Your task to perform on an android device: Search for good Greek restaurants Image 0: 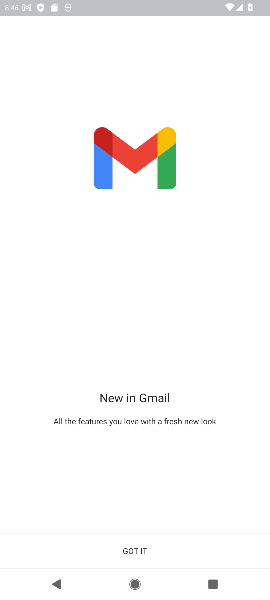
Step 0: press home button
Your task to perform on an android device: Search for good Greek restaurants Image 1: 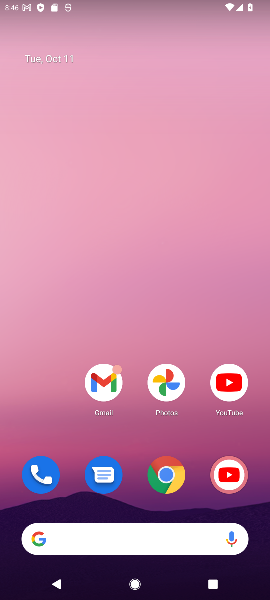
Step 1: drag from (157, 508) to (158, 47)
Your task to perform on an android device: Search for good Greek restaurants Image 2: 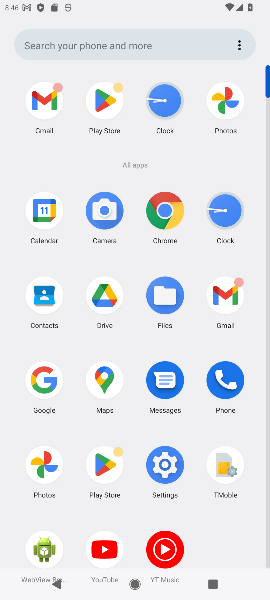
Step 2: click (162, 222)
Your task to perform on an android device: Search for good Greek restaurants Image 3: 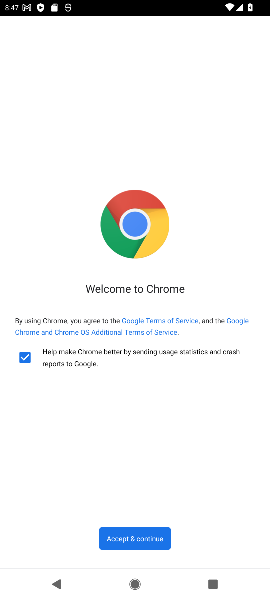
Step 3: click (123, 550)
Your task to perform on an android device: Search for good Greek restaurants Image 4: 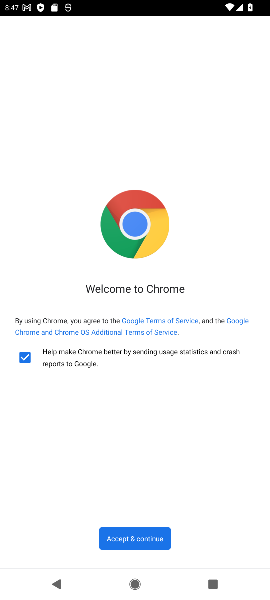
Step 4: click (125, 532)
Your task to perform on an android device: Search for good Greek restaurants Image 5: 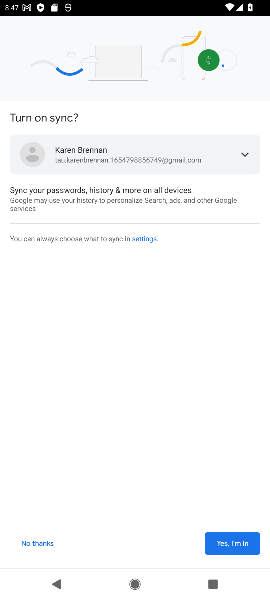
Step 5: click (248, 542)
Your task to perform on an android device: Search for good Greek restaurants Image 6: 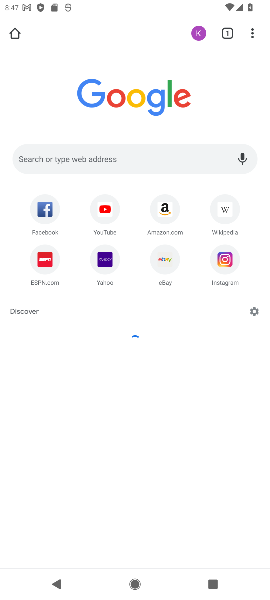
Step 6: click (225, 539)
Your task to perform on an android device: Search for good Greek restaurants Image 7: 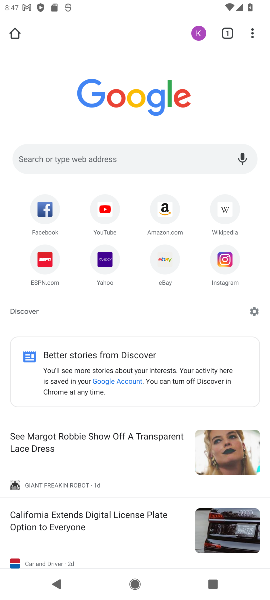
Step 7: click (83, 162)
Your task to perform on an android device: Search for good Greek restaurants Image 8: 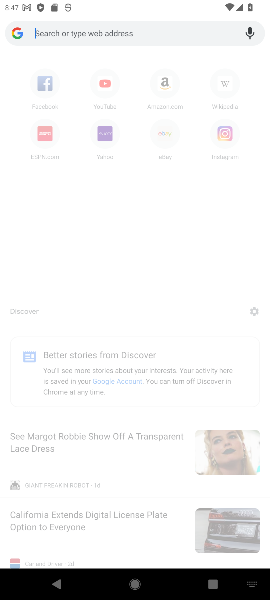
Step 8: type "good Greek restaurants"
Your task to perform on an android device: Search for good Greek restaurants Image 9: 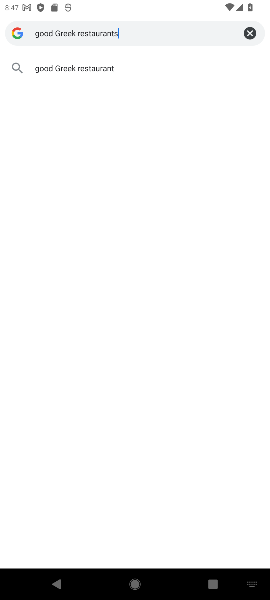
Step 9: type ""
Your task to perform on an android device: Search for good Greek restaurants Image 10: 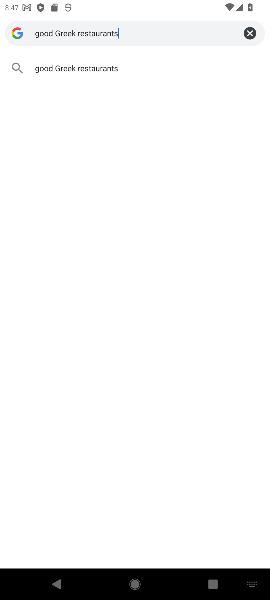
Step 10: click (86, 66)
Your task to perform on an android device: Search for good Greek restaurants Image 11: 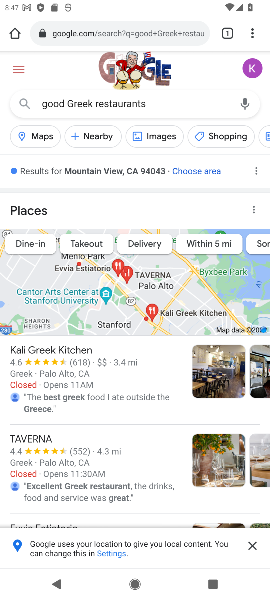
Step 11: click (52, 359)
Your task to perform on an android device: Search for good Greek restaurants Image 12: 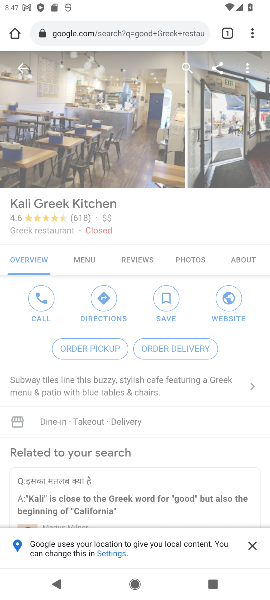
Step 12: click (248, 550)
Your task to perform on an android device: Search for good Greek restaurants Image 13: 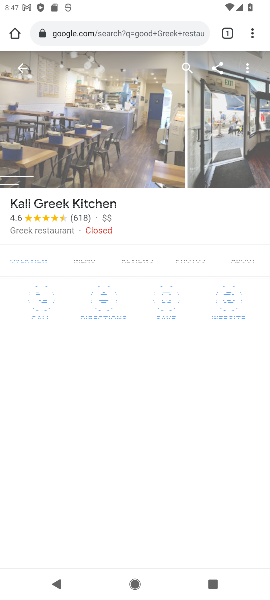
Step 13: drag from (226, 576) to (214, 266)
Your task to perform on an android device: Search for good Greek restaurants Image 14: 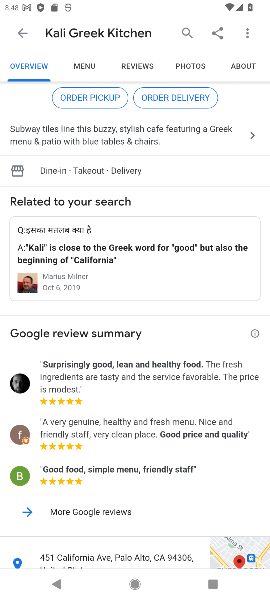
Step 14: drag from (150, 457) to (192, 146)
Your task to perform on an android device: Search for good Greek restaurants Image 15: 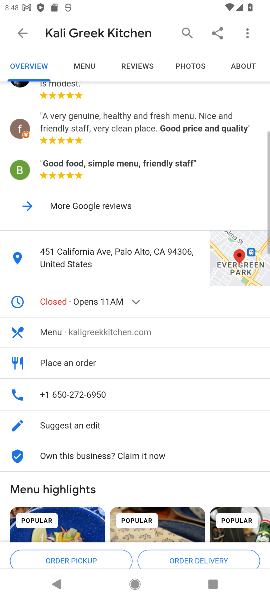
Step 15: drag from (181, 418) to (186, 118)
Your task to perform on an android device: Search for good Greek restaurants Image 16: 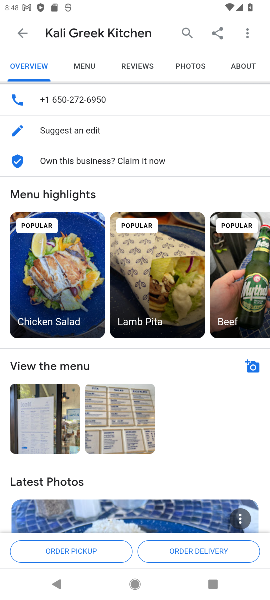
Step 16: drag from (152, 369) to (173, 116)
Your task to perform on an android device: Search for good Greek restaurants Image 17: 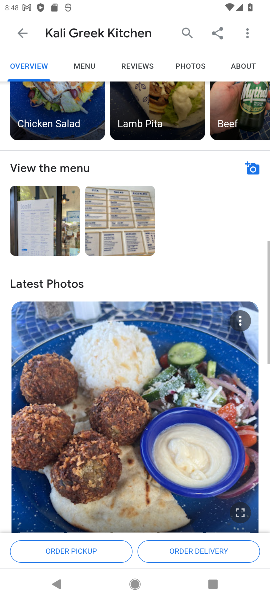
Step 17: drag from (131, 358) to (149, 120)
Your task to perform on an android device: Search for good Greek restaurants Image 18: 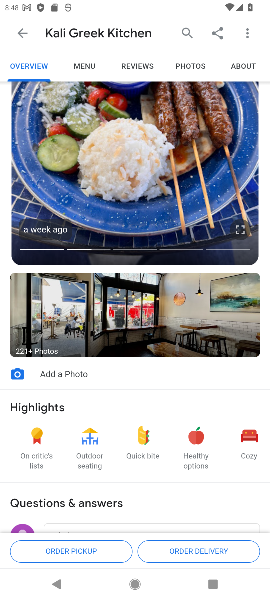
Step 18: drag from (139, 256) to (140, 109)
Your task to perform on an android device: Search for good Greek restaurants Image 19: 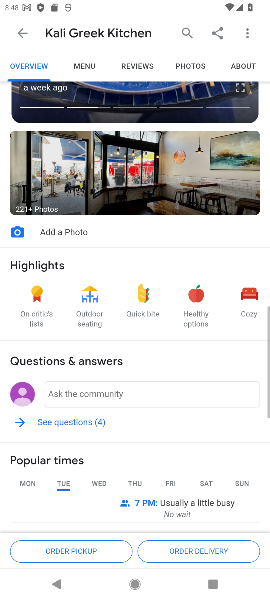
Step 19: drag from (127, 367) to (170, 111)
Your task to perform on an android device: Search for good Greek restaurants Image 20: 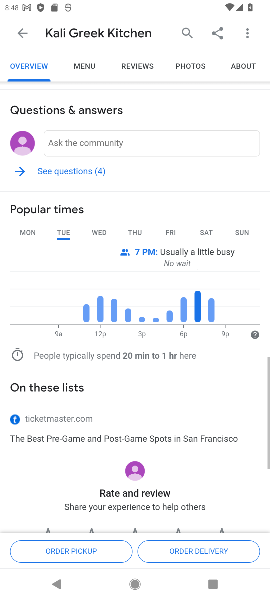
Step 20: drag from (178, 370) to (205, 85)
Your task to perform on an android device: Search for good Greek restaurants Image 21: 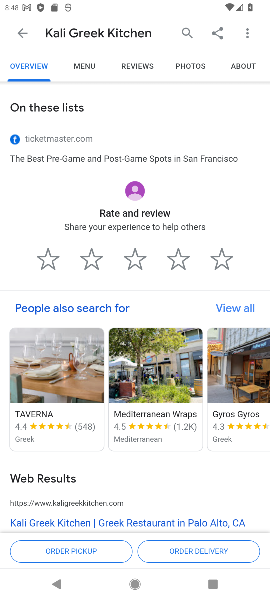
Step 21: drag from (131, 422) to (132, 131)
Your task to perform on an android device: Search for good Greek restaurants Image 22: 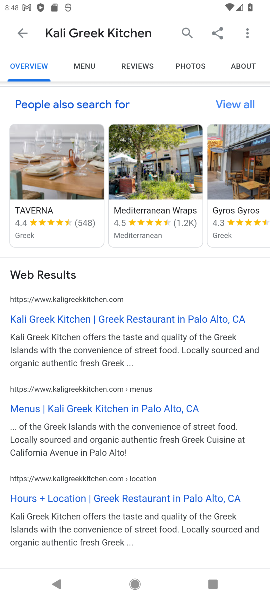
Step 22: drag from (166, 442) to (175, 124)
Your task to perform on an android device: Search for good Greek restaurants Image 23: 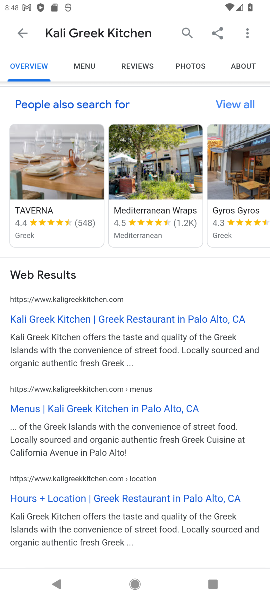
Step 23: drag from (163, 446) to (197, 157)
Your task to perform on an android device: Search for good Greek restaurants Image 24: 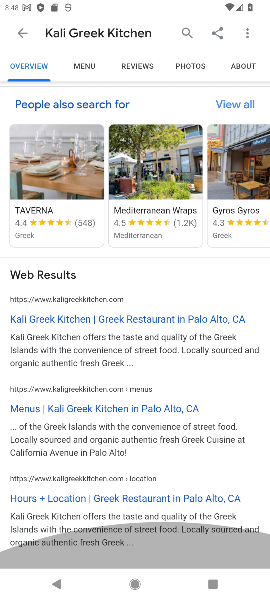
Step 24: drag from (144, 446) to (163, 122)
Your task to perform on an android device: Search for good Greek restaurants Image 25: 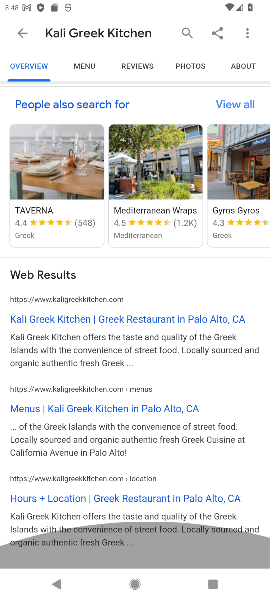
Step 25: drag from (179, 484) to (173, 154)
Your task to perform on an android device: Search for good Greek restaurants Image 26: 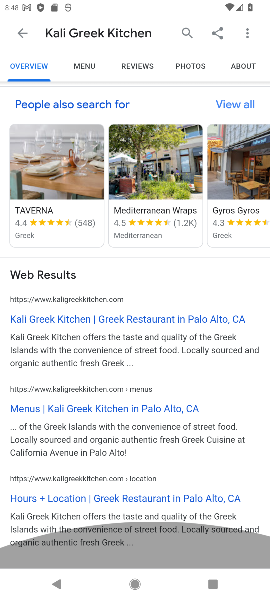
Step 26: drag from (182, 342) to (188, 161)
Your task to perform on an android device: Search for good Greek restaurants Image 27: 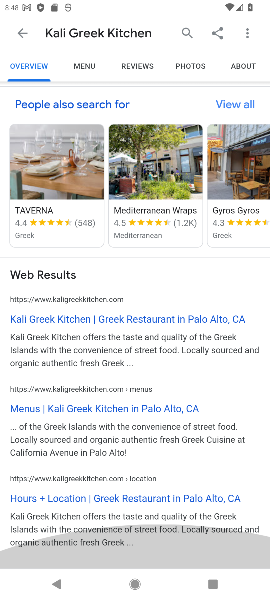
Step 27: drag from (187, 437) to (165, 291)
Your task to perform on an android device: Search for good Greek restaurants Image 28: 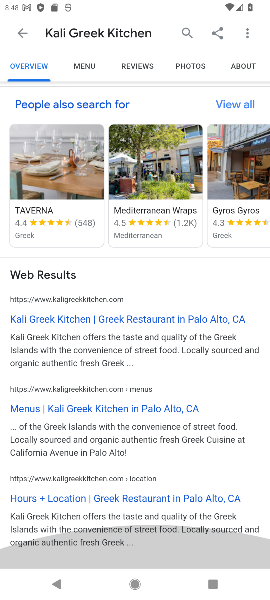
Step 28: drag from (157, 240) to (157, 506)
Your task to perform on an android device: Search for good Greek restaurants Image 29: 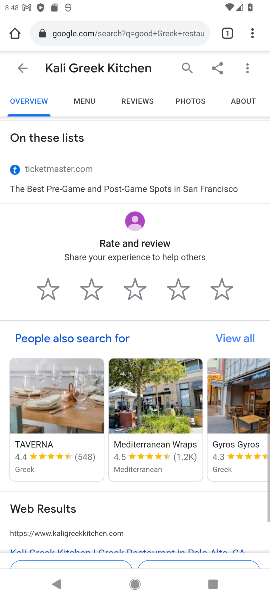
Step 29: drag from (201, 258) to (165, 486)
Your task to perform on an android device: Search for good Greek restaurants Image 30: 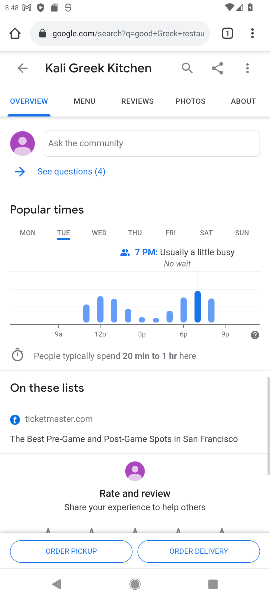
Step 30: drag from (151, 274) to (132, 562)
Your task to perform on an android device: Search for good Greek restaurants Image 31: 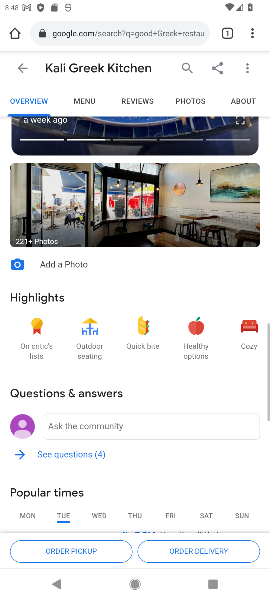
Step 31: drag from (161, 242) to (134, 471)
Your task to perform on an android device: Search for good Greek restaurants Image 32: 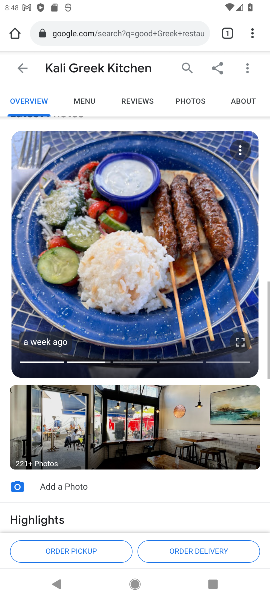
Step 32: drag from (141, 203) to (123, 438)
Your task to perform on an android device: Search for good Greek restaurants Image 33: 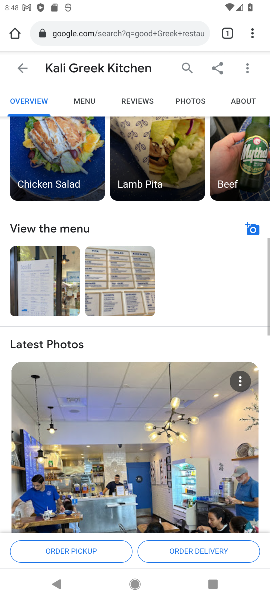
Step 33: drag from (128, 175) to (114, 248)
Your task to perform on an android device: Search for good Greek restaurants Image 34: 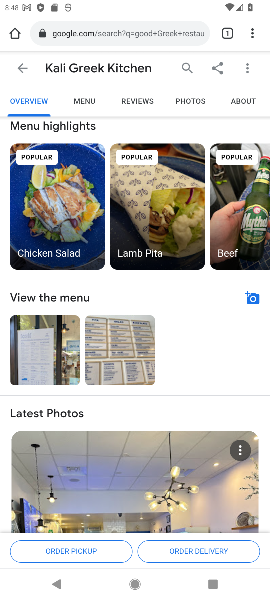
Step 34: drag from (114, 248) to (83, 367)
Your task to perform on an android device: Search for good Greek restaurants Image 35: 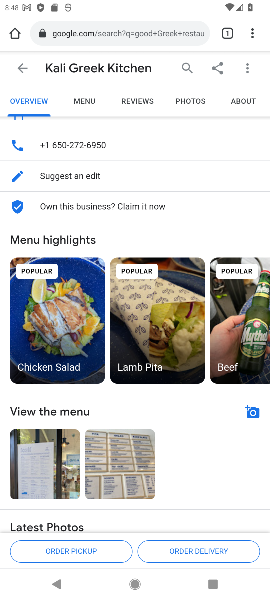
Step 35: drag from (125, 157) to (104, 427)
Your task to perform on an android device: Search for good Greek restaurants Image 36: 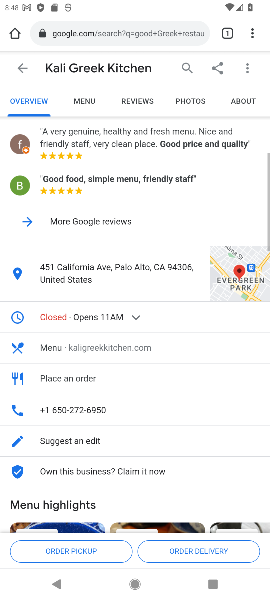
Step 36: drag from (116, 196) to (76, 400)
Your task to perform on an android device: Search for good Greek restaurants Image 37: 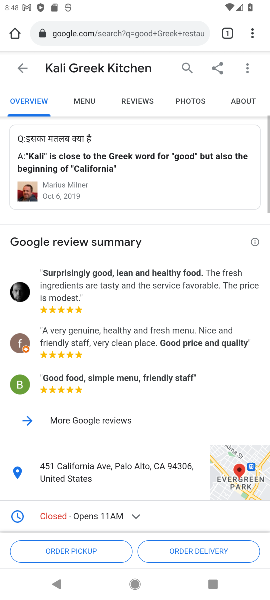
Step 37: drag from (114, 285) to (76, 444)
Your task to perform on an android device: Search for good Greek restaurants Image 38: 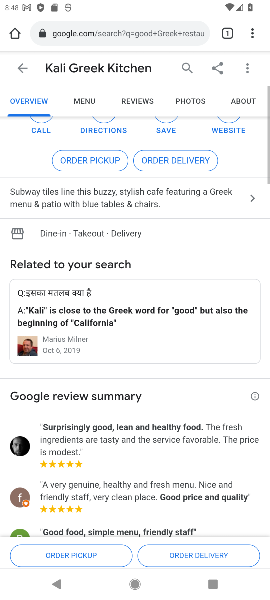
Step 38: drag from (92, 278) to (77, 380)
Your task to perform on an android device: Search for good Greek restaurants Image 39: 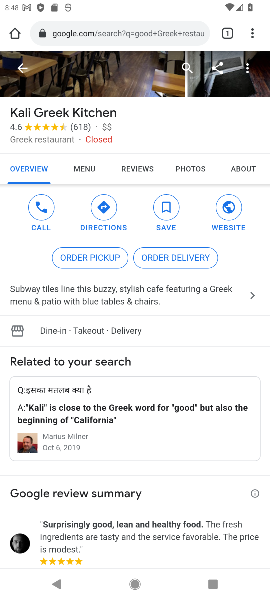
Step 39: drag from (64, 231) to (94, 436)
Your task to perform on an android device: Search for good Greek restaurants Image 40: 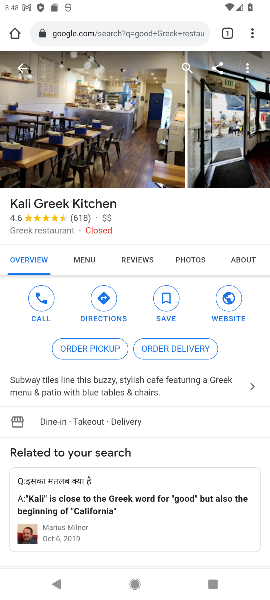
Step 40: click (23, 66)
Your task to perform on an android device: Search for good Greek restaurants Image 41: 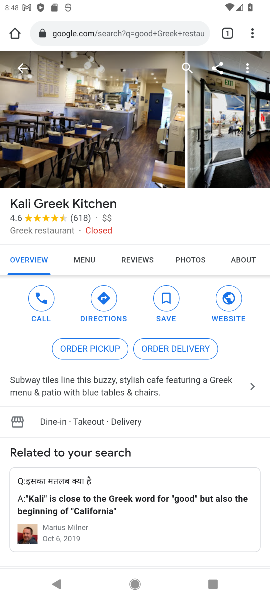
Step 41: drag from (104, 501) to (106, 72)
Your task to perform on an android device: Search for good Greek restaurants Image 42: 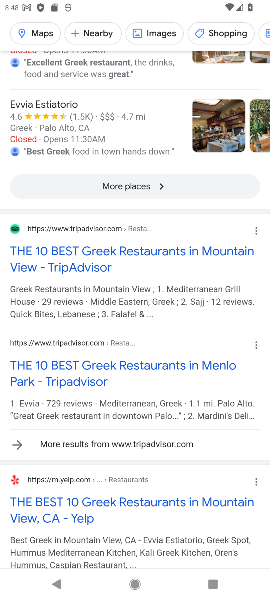
Step 42: click (89, 179)
Your task to perform on an android device: Search for good Greek restaurants Image 43: 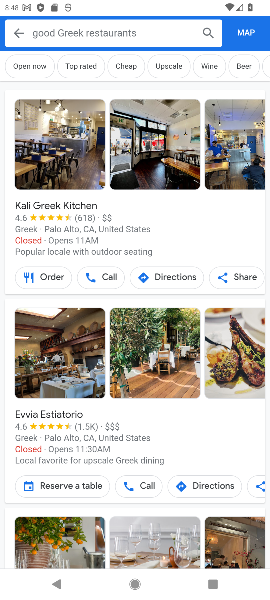
Step 43: drag from (125, 400) to (146, 125)
Your task to perform on an android device: Search for good Greek restaurants Image 44: 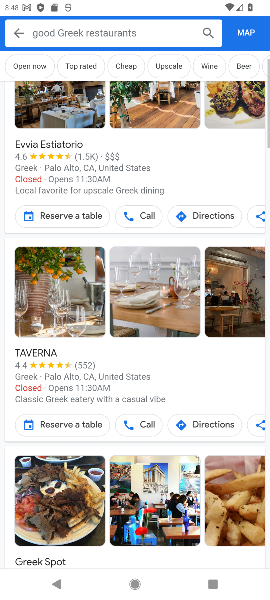
Step 44: drag from (132, 308) to (141, 124)
Your task to perform on an android device: Search for good Greek restaurants Image 45: 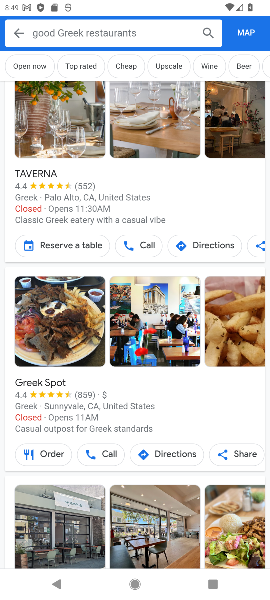
Step 45: drag from (133, 528) to (245, 102)
Your task to perform on an android device: Search for good Greek restaurants Image 46: 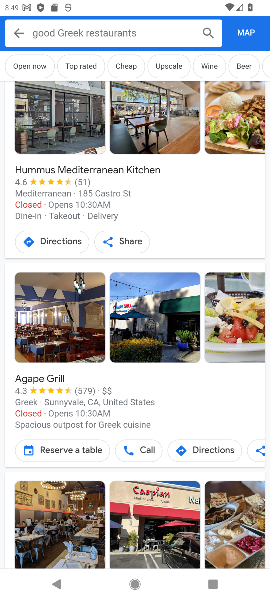
Step 46: drag from (69, 481) to (177, 101)
Your task to perform on an android device: Search for good Greek restaurants Image 47: 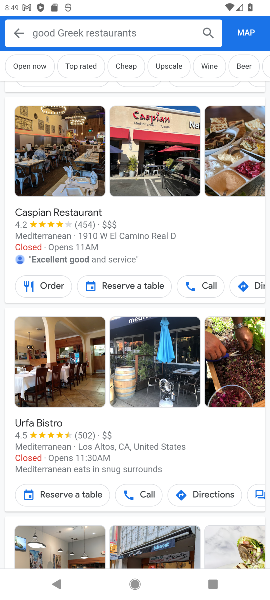
Step 47: drag from (74, 438) to (172, 163)
Your task to perform on an android device: Search for good Greek restaurants Image 48: 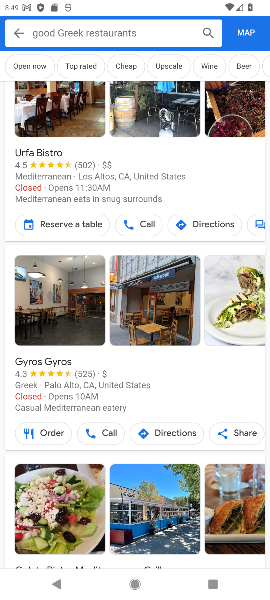
Step 48: drag from (105, 423) to (178, 154)
Your task to perform on an android device: Search for good Greek restaurants Image 49: 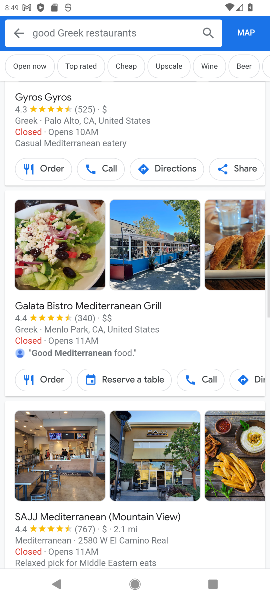
Step 49: drag from (136, 424) to (181, 185)
Your task to perform on an android device: Search for good Greek restaurants Image 50: 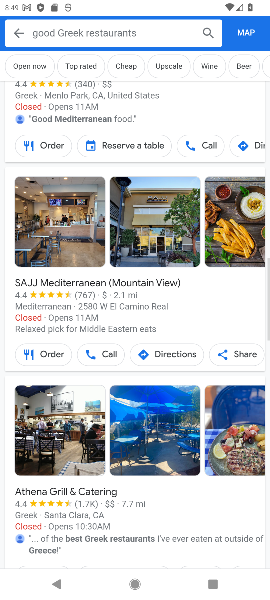
Step 50: drag from (140, 445) to (186, 179)
Your task to perform on an android device: Search for good Greek restaurants Image 51: 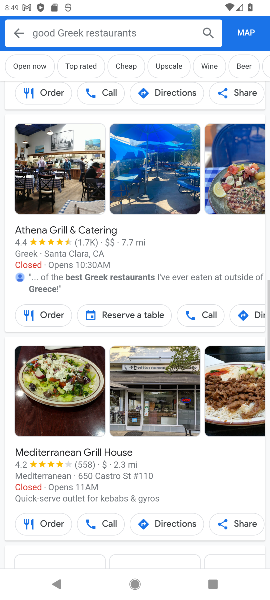
Step 51: drag from (180, 377) to (203, 120)
Your task to perform on an android device: Search for good Greek restaurants Image 52: 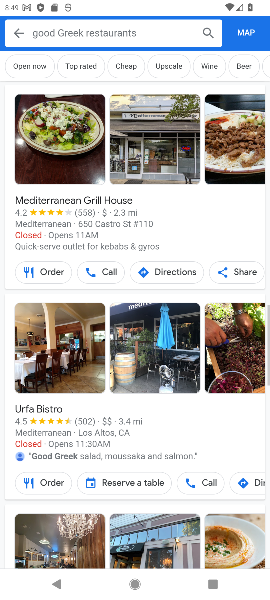
Step 52: drag from (151, 402) to (177, 177)
Your task to perform on an android device: Search for good Greek restaurants Image 53: 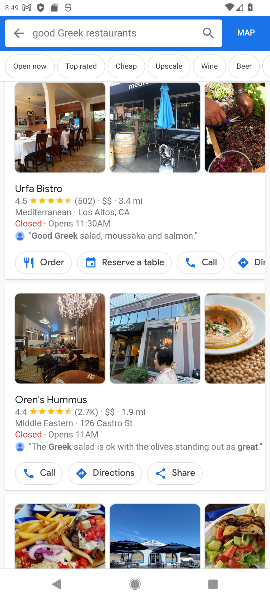
Step 53: click (39, 187)
Your task to perform on an android device: Search for good Greek restaurants Image 54: 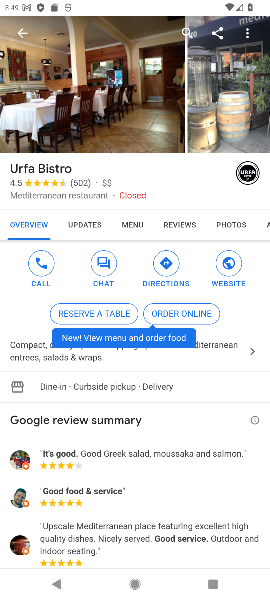
Step 54: drag from (170, 101) to (8, 100)
Your task to perform on an android device: Search for good Greek restaurants Image 55: 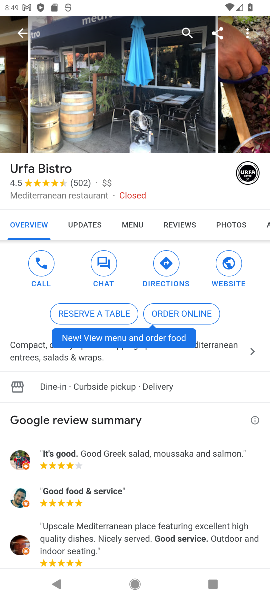
Step 55: drag from (220, 101) to (53, 113)
Your task to perform on an android device: Search for good Greek restaurants Image 56: 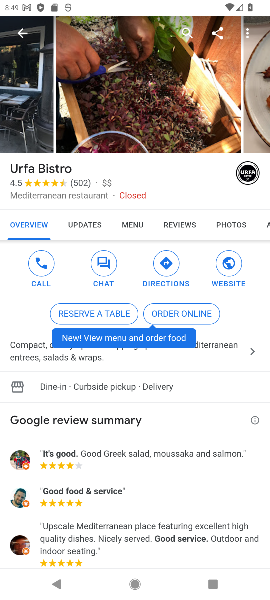
Step 56: drag from (242, 120) to (17, 114)
Your task to perform on an android device: Search for good Greek restaurants Image 57: 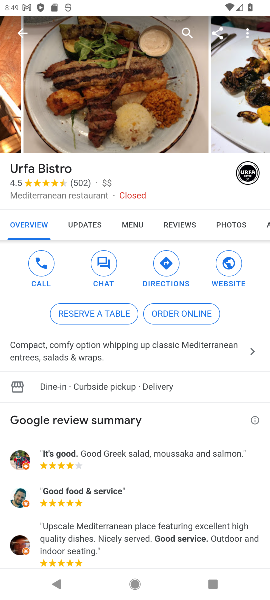
Step 57: drag from (257, 114) to (11, 114)
Your task to perform on an android device: Search for good Greek restaurants Image 58: 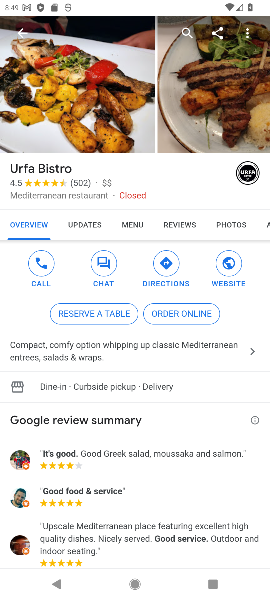
Step 58: drag from (267, 122) to (3, 120)
Your task to perform on an android device: Search for good Greek restaurants Image 59: 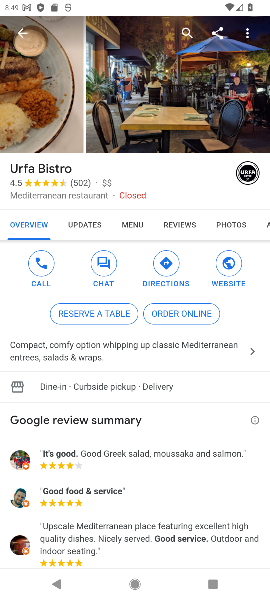
Step 59: drag from (225, 120) to (25, 120)
Your task to perform on an android device: Search for good Greek restaurants Image 60: 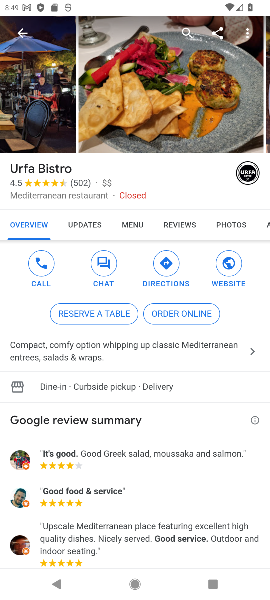
Step 60: drag from (238, 128) to (25, 126)
Your task to perform on an android device: Search for good Greek restaurants Image 61: 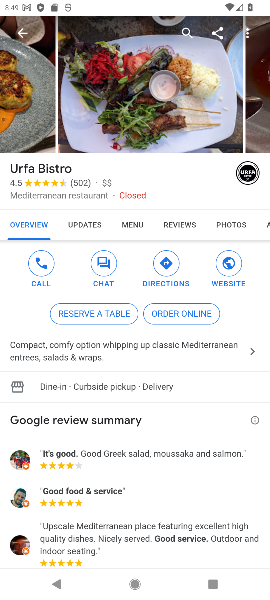
Step 61: drag from (234, 119) to (25, 119)
Your task to perform on an android device: Search for good Greek restaurants Image 62: 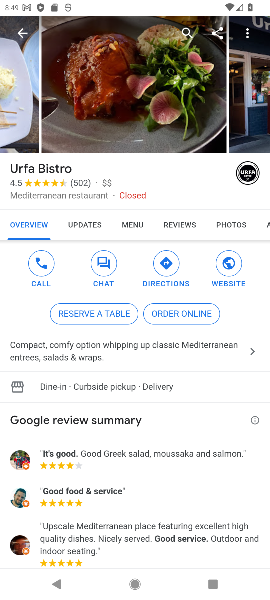
Step 62: drag from (237, 112) to (32, 107)
Your task to perform on an android device: Search for good Greek restaurants Image 63: 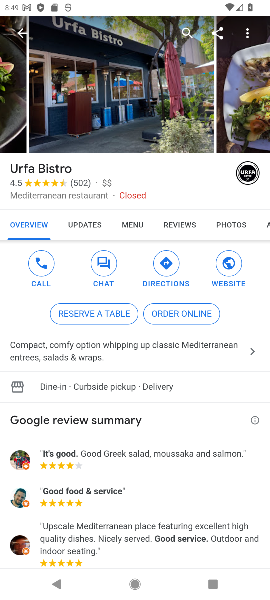
Step 63: drag from (216, 120) to (42, 120)
Your task to perform on an android device: Search for good Greek restaurants Image 64: 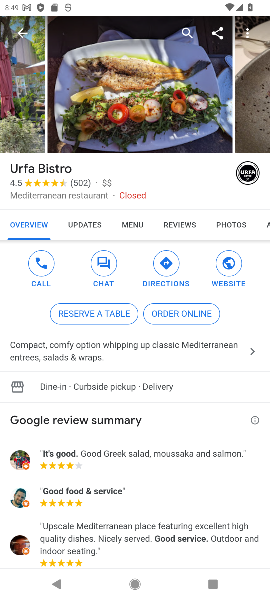
Step 64: drag from (234, 106) to (3, 109)
Your task to perform on an android device: Search for good Greek restaurants Image 65: 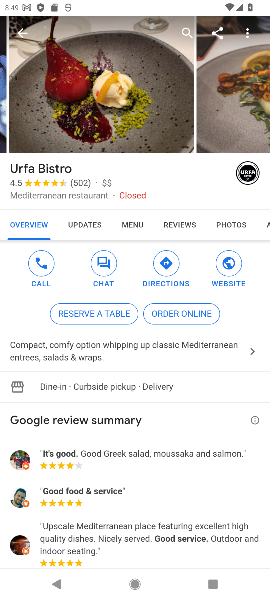
Step 65: drag from (204, 109) to (38, 109)
Your task to perform on an android device: Search for good Greek restaurants Image 66: 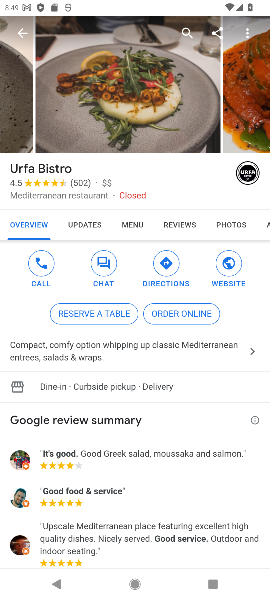
Step 66: drag from (114, 112) to (0, 115)
Your task to perform on an android device: Search for good Greek restaurants Image 67: 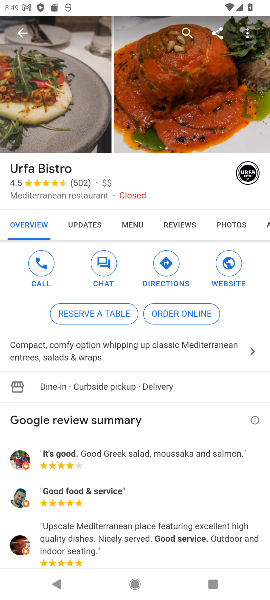
Step 67: drag from (134, 120) to (18, 120)
Your task to perform on an android device: Search for good Greek restaurants Image 68: 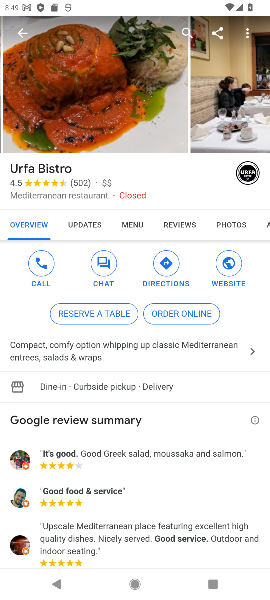
Step 68: drag from (130, 117) to (3, 116)
Your task to perform on an android device: Search for good Greek restaurants Image 69: 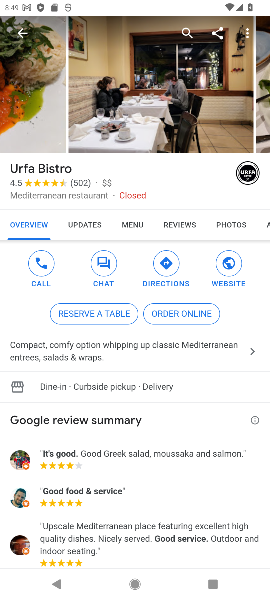
Step 69: drag from (167, 109) to (66, 109)
Your task to perform on an android device: Search for good Greek restaurants Image 70: 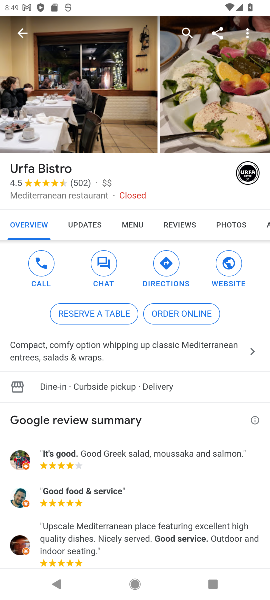
Step 70: click (19, 34)
Your task to perform on an android device: Search for good Greek restaurants Image 71: 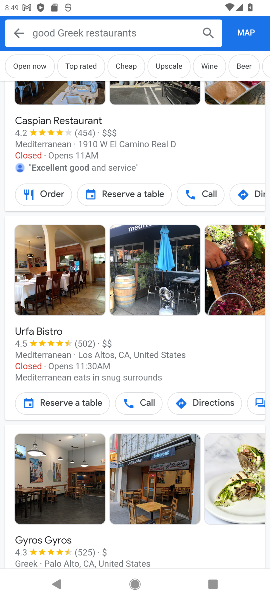
Step 71: drag from (103, 512) to (165, 87)
Your task to perform on an android device: Search for good Greek restaurants Image 72: 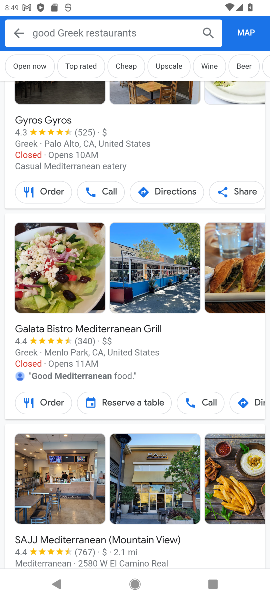
Step 72: click (65, 340)
Your task to perform on an android device: Search for good Greek restaurants Image 73: 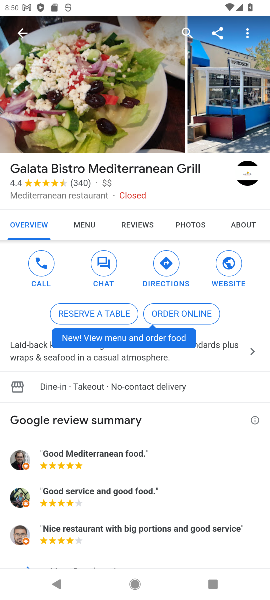
Step 73: drag from (80, 467) to (110, 133)
Your task to perform on an android device: Search for good Greek restaurants Image 74: 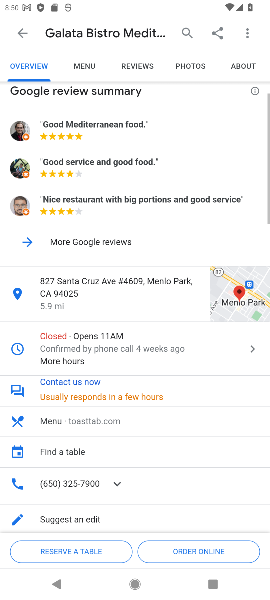
Step 74: click (96, 169)
Your task to perform on an android device: Search for good Greek restaurants Image 75: 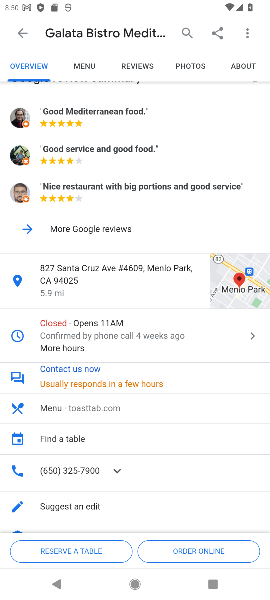
Step 75: drag from (120, 314) to (159, 124)
Your task to perform on an android device: Search for good Greek restaurants Image 76: 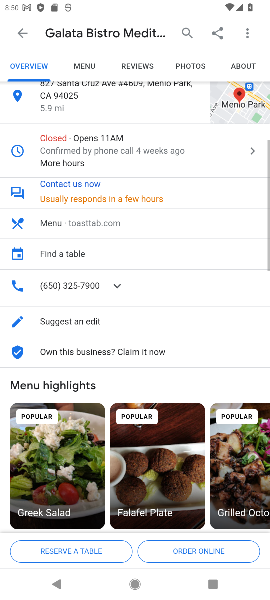
Step 76: drag from (116, 307) to (147, 184)
Your task to perform on an android device: Search for good Greek restaurants Image 77: 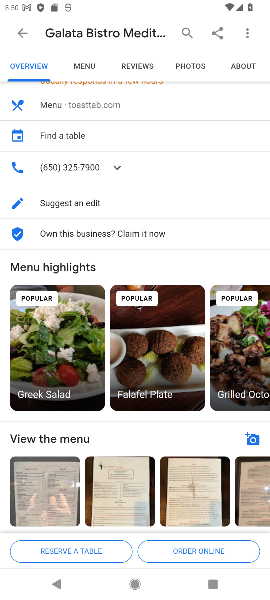
Step 77: drag from (113, 411) to (166, 133)
Your task to perform on an android device: Search for good Greek restaurants Image 78: 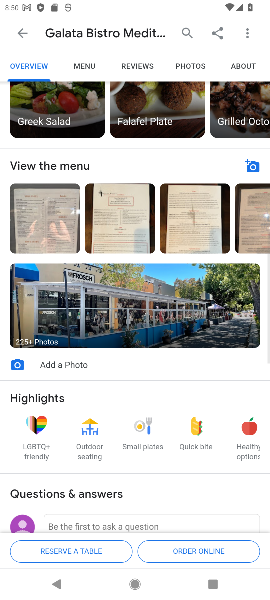
Step 78: drag from (157, 383) to (170, 169)
Your task to perform on an android device: Search for good Greek restaurants Image 79: 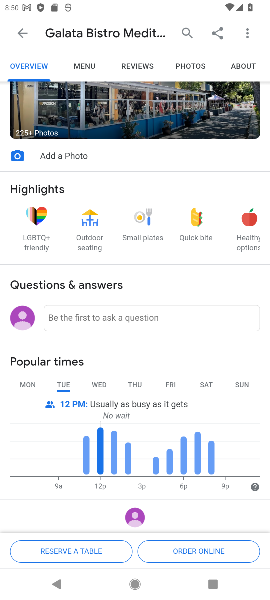
Step 79: drag from (111, 438) to (174, 177)
Your task to perform on an android device: Search for good Greek restaurants Image 80: 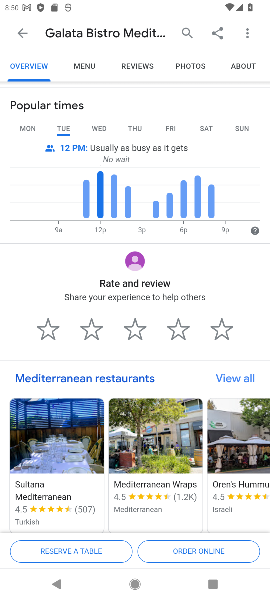
Step 80: drag from (94, 444) to (114, 279)
Your task to perform on an android device: Search for good Greek restaurants Image 81: 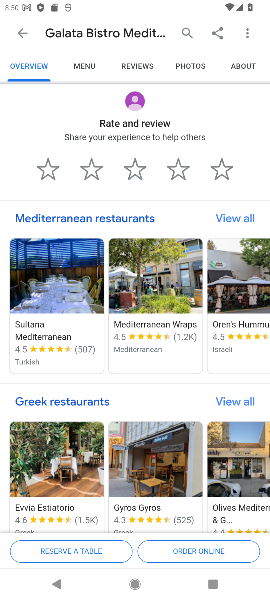
Step 81: drag from (89, 510) to (93, 417)
Your task to perform on an android device: Search for good Greek restaurants Image 82: 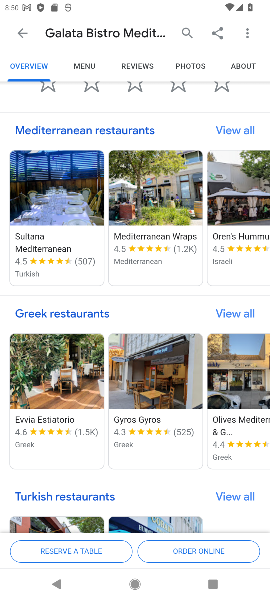
Step 82: drag from (83, 574) to (160, 202)
Your task to perform on an android device: Search for good Greek restaurants Image 83: 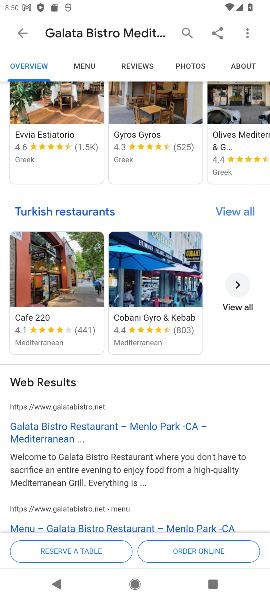
Step 83: click (79, 322)
Your task to perform on an android device: Search for good Greek restaurants Image 84: 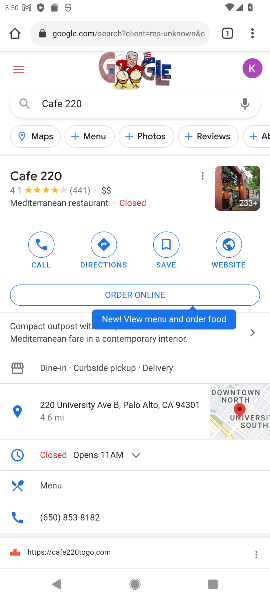
Step 84: drag from (138, 392) to (211, 105)
Your task to perform on an android device: Search for good Greek restaurants Image 85: 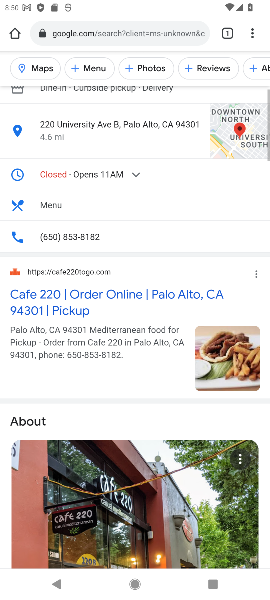
Step 85: drag from (148, 471) to (206, 149)
Your task to perform on an android device: Search for good Greek restaurants Image 86: 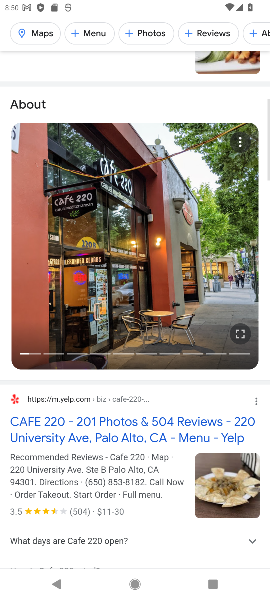
Step 86: drag from (142, 406) to (174, 117)
Your task to perform on an android device: Search for good Greek restaurants Image 87: 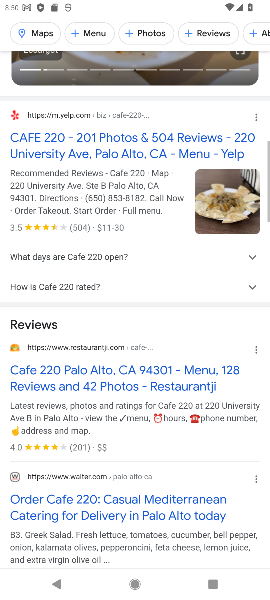
Step 87: drag from (196, 185) to (7, 185)
Your task to perform on an android device: Search for good Greek restaurants Image 88: 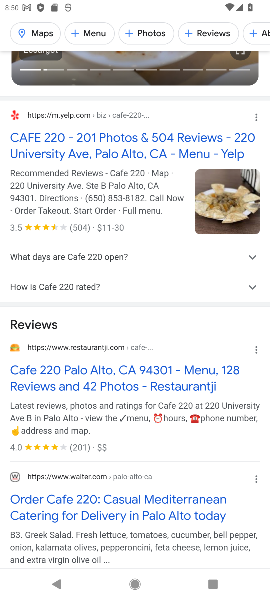
Step 88: drag from (117, 348) to (155, 81)
Your task to perform on an android device: Search for good Greek restaurants Image 89: 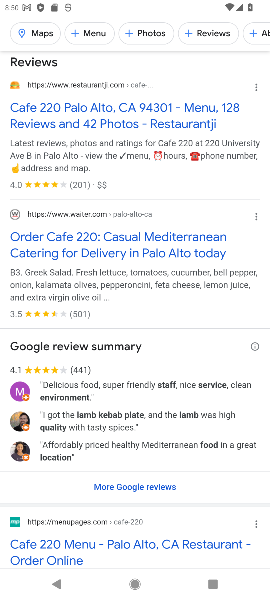
Step 89: drag from (135, 382) to (158, 91)
Your task to perform on an android device: Search for good Greek restaurants Image 90: 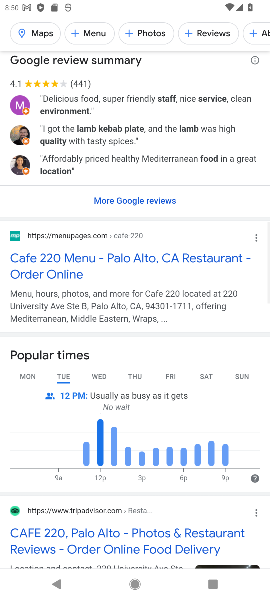
Step 90: drag from (154, 408) to (208, 66)
Your task to perform on an android device: Search for good Greek restaurants Image 91: 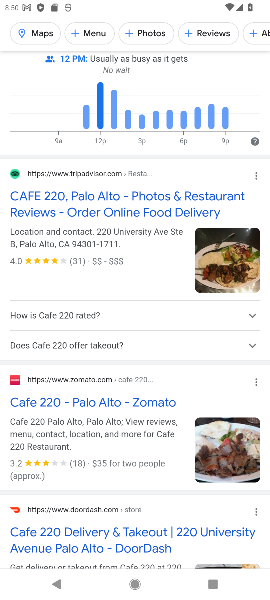
Step 91: drag from (65, 360) to (155, 39)
Your task to perform on an android device: Search for good Greek restaurants Image 92: 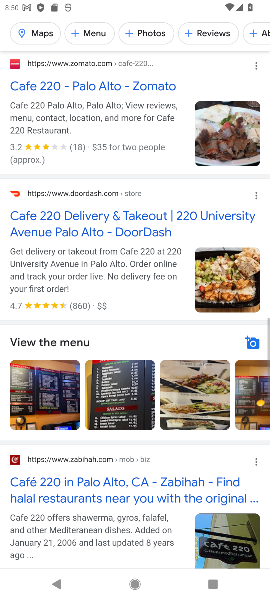
Step 92: drag from (145, 442) to (189, 76)
Your task to perform on an android device: Search for good Greek restaurants Image 93: 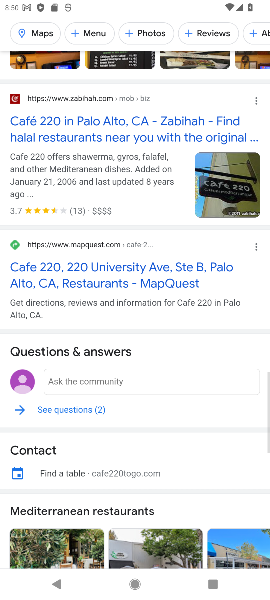
Step 93: drag from (111, 439) to (165, 88)
Your task to perform on an android device: Search for good Greek restaurants Image 94: 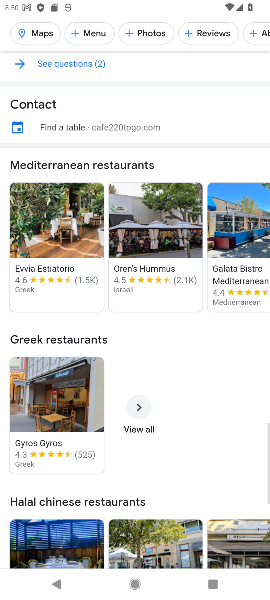
Step 94: drag from (104, 446) to (153, 95)
Your task to perform on an android device: Search for good Greek restaurants Image 95: 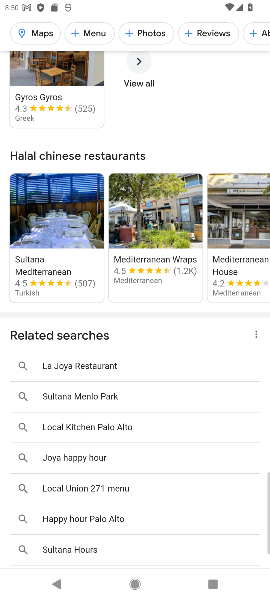
Step 95: drag from (106, 445) to (145, 132)
Your task to perform on an android device: Search for good Greek restaurants Image 96: 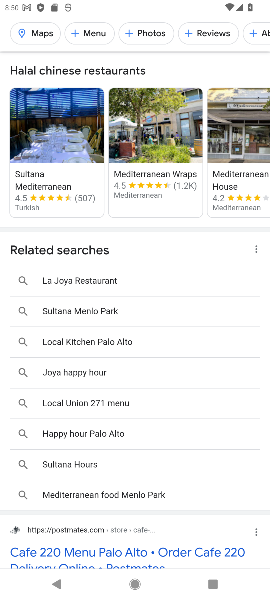
Step 96: drag from (124, 445) to (180, 199)
Your task to perform on an android device: Search for good Greek restaurants Image 97: 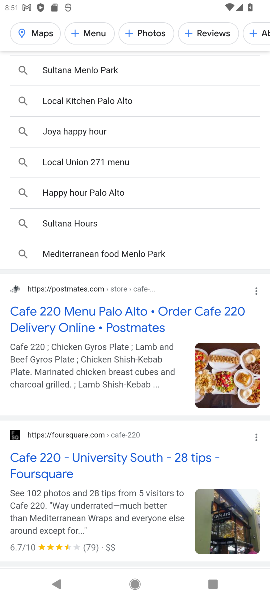
Step 97: click (96, 311)
Your task to perform on an android device: Search for good Greek restaurants Image 98: 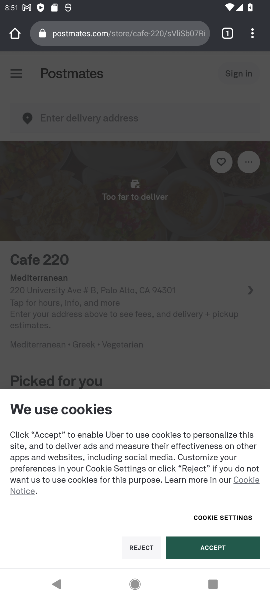
Step 98: drag from (131, 455) to (163, 345)
Your task to perform on an android device: Search for good Greek restaurants Image 99: 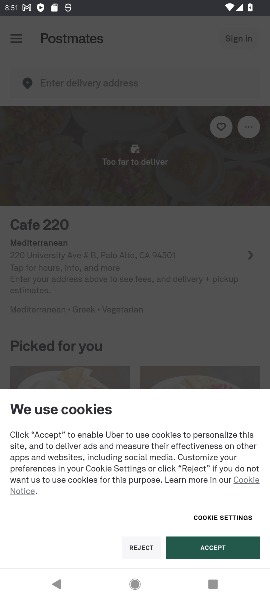
Step 99: click (181, 538)
Your task to perform on an android device: Search for good Greek restaurants Image 100: 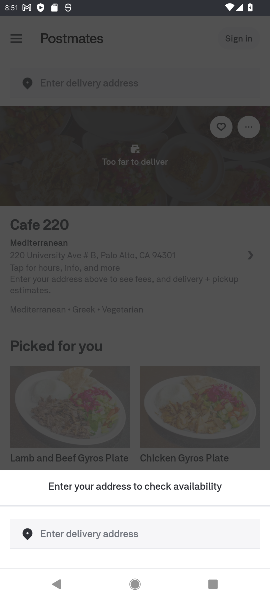
Step 100: click (232, 356)
Your task to perform on an android device: Search for good Greek restaurants Image 101: 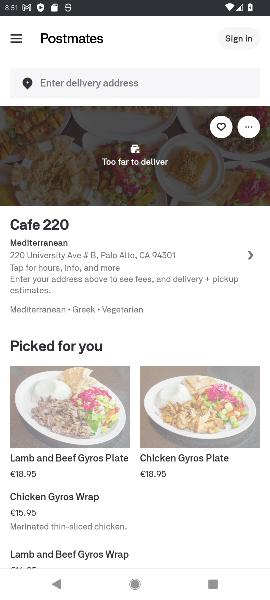
Step 101: task complete